Your task to perform on an android device: turn off wifi Image 0: 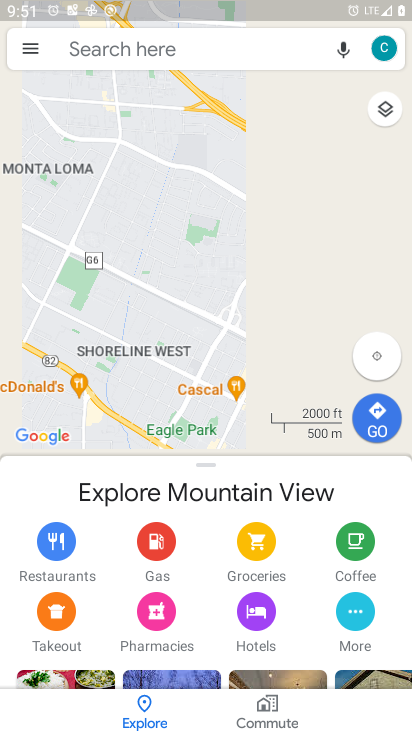
Step 0: press home button
Your task to perform on an android device: turn off wifi Image 1: 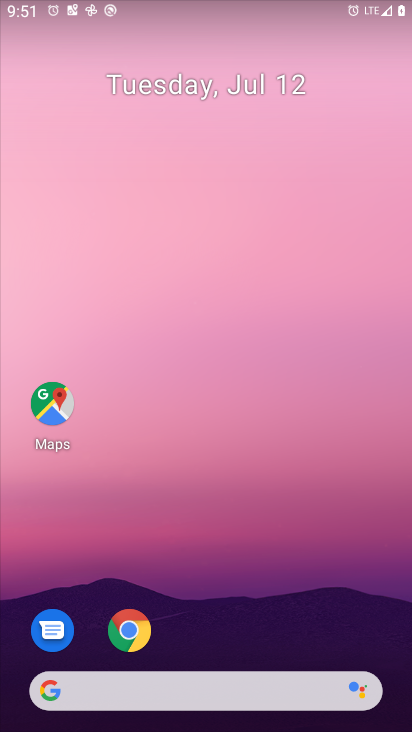
Step 1: task complete